Your task to perform on an android device: delete the emails in spam in the gmail app Image 0: 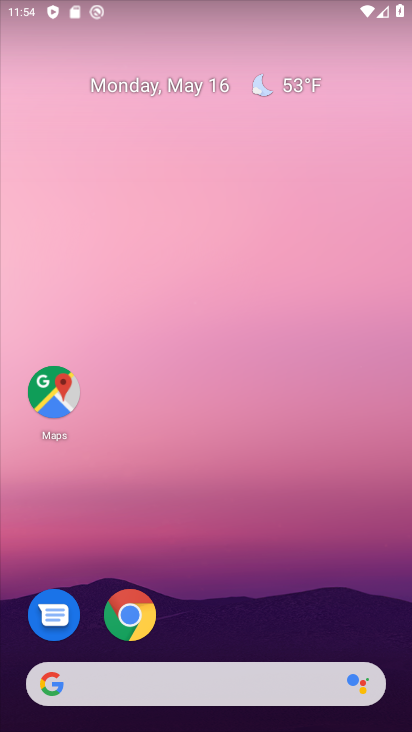
Step 0: drag from (301, 601) to (251, 193)
Your task to perform on an android device: delete the emails in spam in the gmail app Image 1: 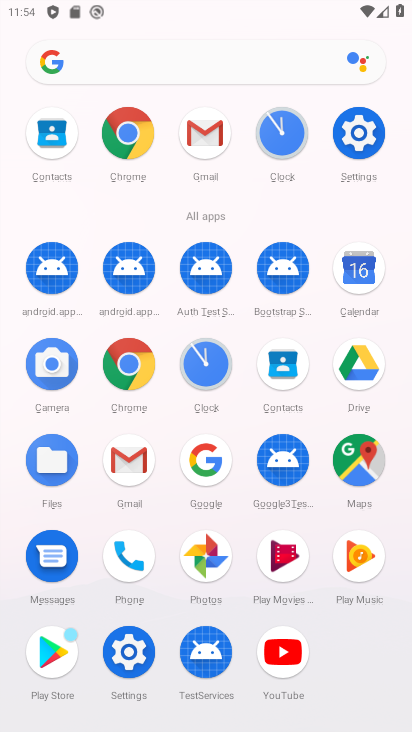
Step 1: click (137, 445)
Your task to perform on an android device: delete the emails in spam in the gmail app Image 2: 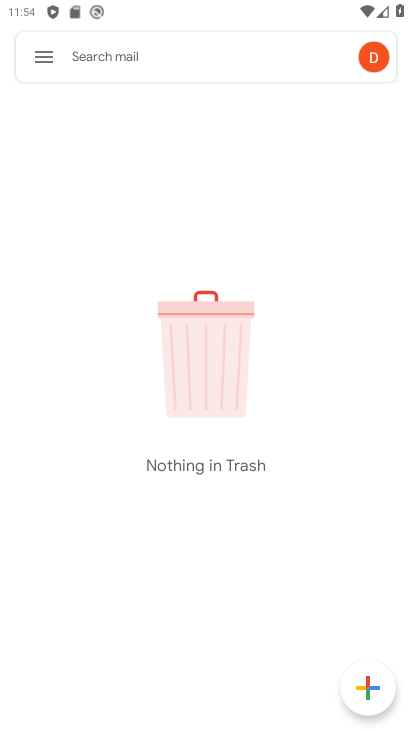
Step 2: click (45, 54)
Your task to perform on an android device: delete the emails in spam in the gmail app Image 3: 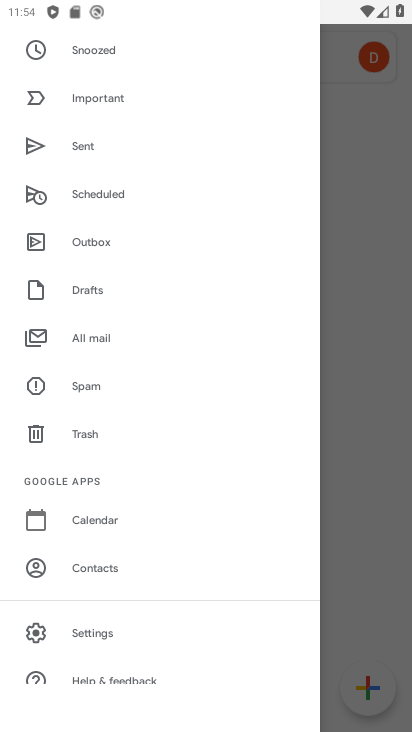
Step 3: click (170, 375)
Your task to perform on an android device: delete the emails in spam in the gmail app Image 4: 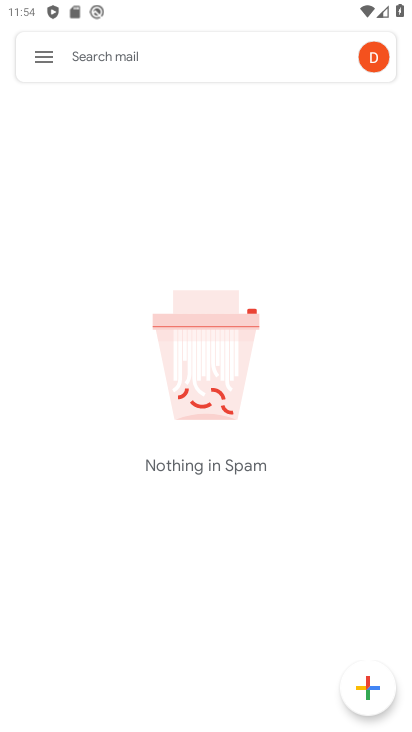
Step 4: task complete